Your task to perform on an android device: Show the shopping cart on ebay.com. Search for rayovac triple a on ebay.com, select the first entry, and add it to the cart. Image 0: 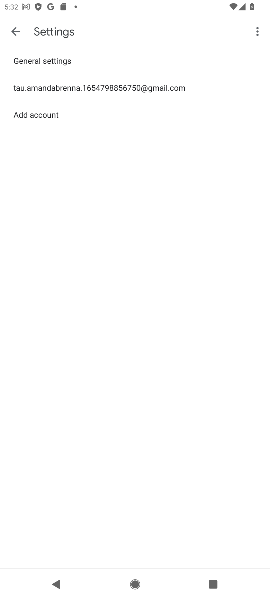
Step 0: press home button
Your task to perform on an android device: Show the shopping cart on ebay.com. Search for rayovac triple a on ebay.com, select the first entry, and add it to the cart. Image 1: 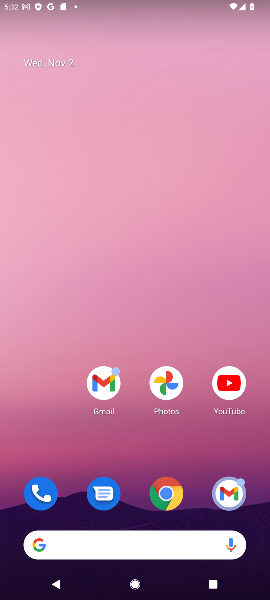
Step 1: drag from (124, 520) to (122, 155)
Your task to perform on an android device: Show the shopping cart on ebay.com. Search for rayovac triple a on ebay.com, select the first entry, and add it to the cart. Image 2: 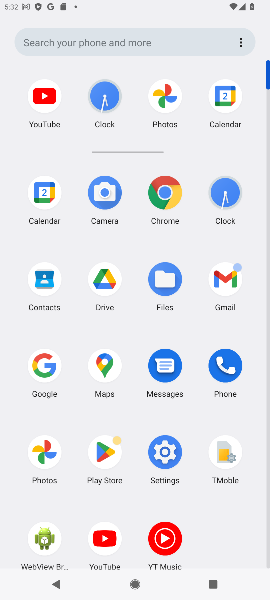
Step 2: click (49, 366)
Your task to perform on an android device: Show the shopping cart on ebay.com. Search for rayovac triple a on ebay.com, select the first entry, and add it to the cart. Image 3: 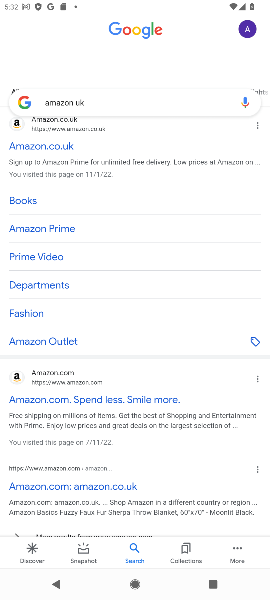
Step 3: click (103, 101)
Your task to perform on an android device: Show the shopping cart on ebay.com. Search for rayovac triple a on ebay.com, select the first entry, and add it to the cart. Image 4: 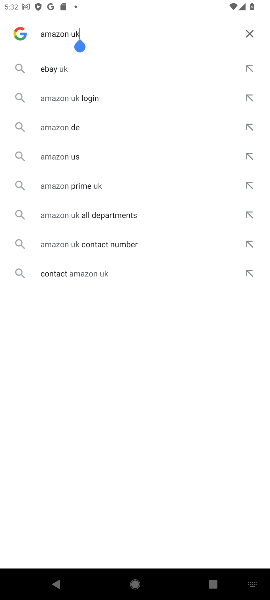
Step 4: click (58, 72)
Your task to perform on an android device: Show the shopping cart on ebay.com. Search for rayovac triple a on ebay.com, select the first entry, and add it to the cart. Image 5: 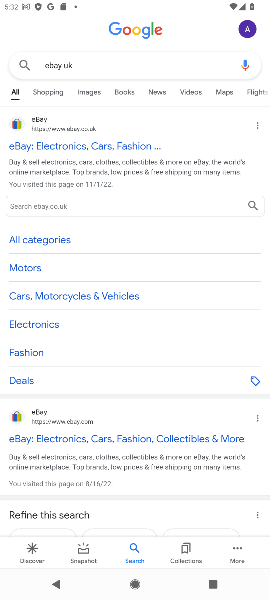
Step 5: click (28, 148)
Your task to perform on an android device: Show the shopping cart on ebay.com. Search for rayovac triple a on ebay.com, select the first entry, and add it to the cart. Image 6: 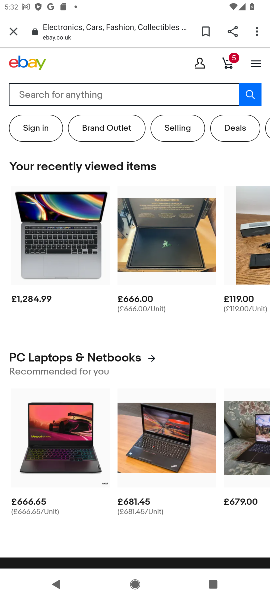
Step 6: click (141, 83)
Your task to perform on an android device: Show the shopping cart on ebay.com. Search for rayovac triple a on ebay.com, select the first entry, and add it to the cart. Image 7: 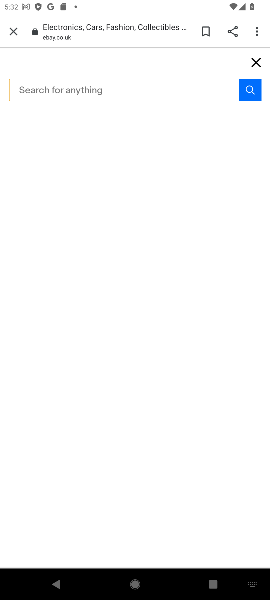
Step 7: click (67, 89)
Your task to perform on an android device: Show the shopping cart on ebay.com. Search for rayovac triple a on ebay.com, select the first entry, and add it to the cart. Image 8: 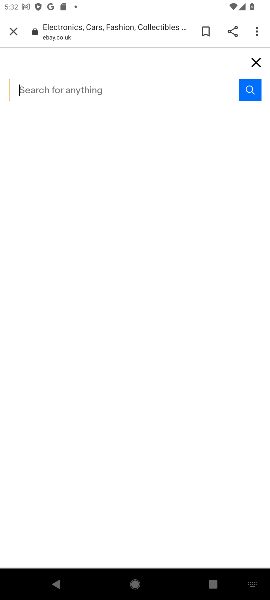
Step 8: type "rayovac "
Your task to perform on an android device: Show the shopping cart on ebay.com. Search for rayovac triple a on ebay.com, select the first entry, and add it to the cart. Image 9: 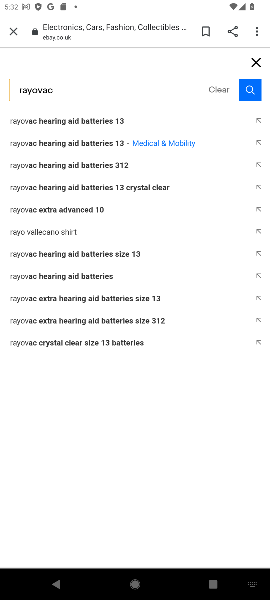
Step 9: click (57, 118)
Your task to perform on an android device: Show the shopping cart on ebay.com. Search for rayovac triple a on ebay.com, select the first entry, and add it to the cart. Image 10: 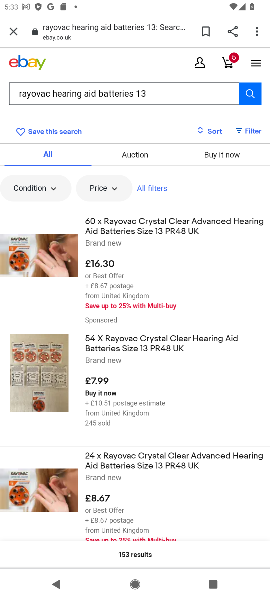
Step 10: click (204, 88)
Your task to perform on an android device: Show the shopping cart on ebay.com. Search for rayovac triple a on ebay.com, select the first entry, and add it to the cart. Image 11: 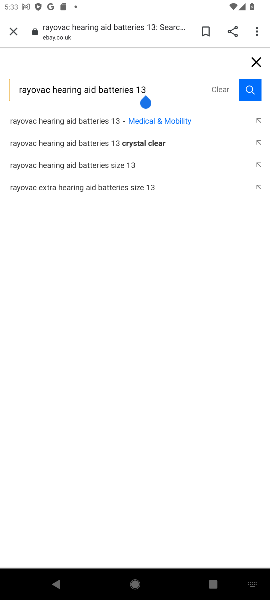
Step 11: click (198, 86)
Your task to perform on an android device: Show the shopping cart on ebay.com. Search for rayovac triple a on ebay.com, select the first entry, and add it to the cart. Image 12: 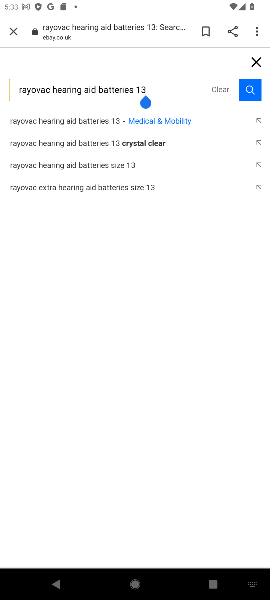
Step 12: click (207, 86)
Your task to perform on an android device: Show the shopping cart on ebay.com. Search for rayovac triple a on ebay.com, select the first entry, and add it to the cart. Image 13: 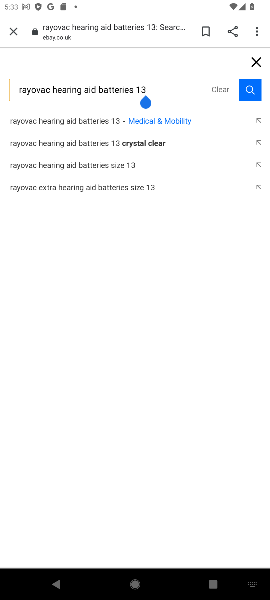
Step 13: click (214, 90)
Your task to perform on an android device: Show the shopping cart on ebay.com. Search for rayovac triple a on ebay.com, select the first entry, and add it to the cart. Image 14: 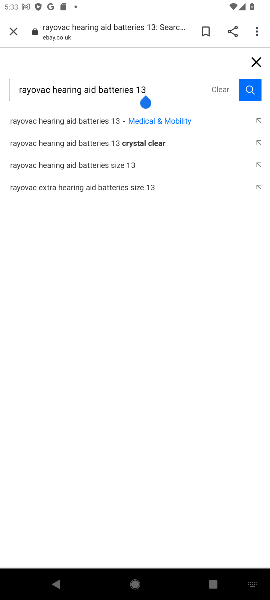
Step 14: click (214, 90)
Your task to perform on an android device: Show the shopping cart on ebay.com. Search for rayovac triple a on ebay.com, select the first entry, and add it to the cart. Image 15: 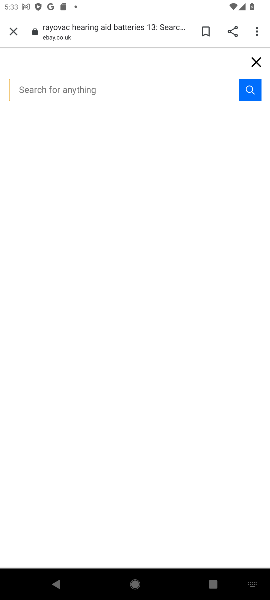
Step 15: click (214, 90)
Your task to perform on an android device: Show the shopping cart on ebay.com. Search for rayovac triple a on ebay.com, select the first entry, and add it to the cart. Image 16: 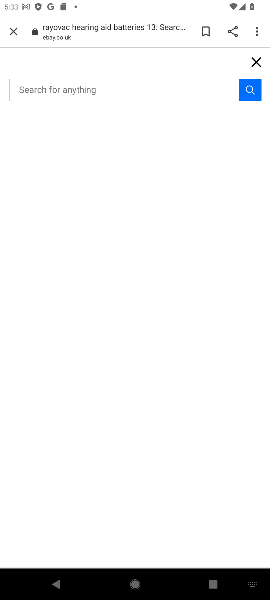
Step 16: click (61, 89)
Your task to perform on an android device: Show the shopping cart on ebay.com. Search for rayovac triple a on ebay.com, select the first entry, and add it to the cart. Image 17: 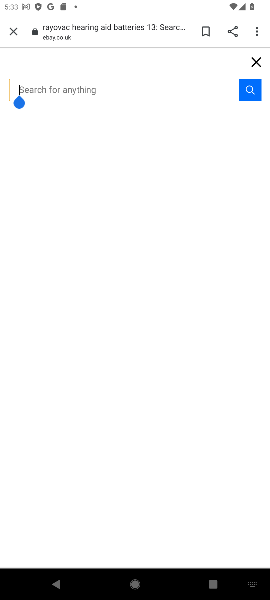
Step 17: type " rayovac triple "
Your task to perform on an android device: Show the shopping cart on ebay.com. Search for rayovac triple a on ebay.com, select the first entry, and add it to the cart. Image 18: 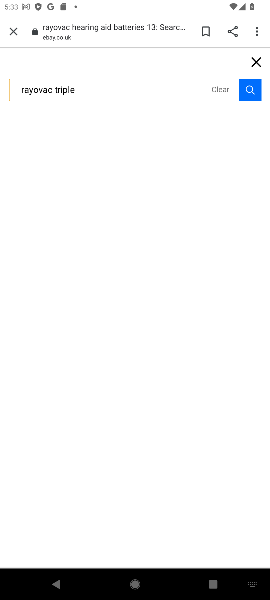
Step 18: click (251, 93)
Your task to perform on an android device: Show the shopping cart on ebay.com. Search for rayovac triple a on ebay.com, select the first entry, and add it to the cart. Image 19: 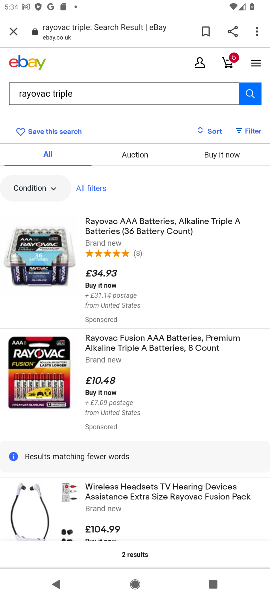
Step 19: click (33, 253)
Your task to perform on an android device: Show the shopping cart on ebay.com. Search for rayovac triple a on ebay.com, select the first entry, and add it to the cart. Image 20: 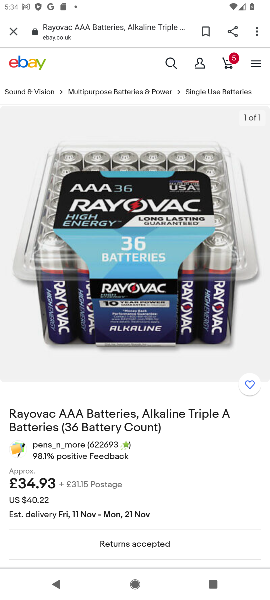
Step 20: drag from (182, 505) to (182, 189)
Your task to perform on an android device: Show the shopping cart on ebay.com. Search for rayovac triple a on ebay.com, select the first entry, and add it to the cart. Image 21: 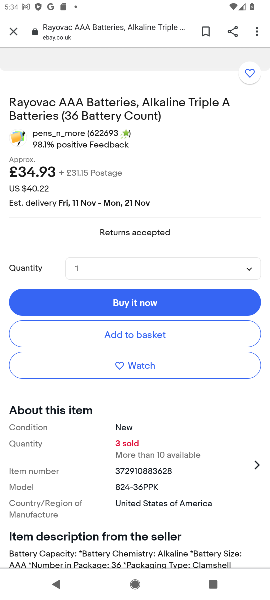
Step 21: click (148, 336)
Your task to perform on an android device: Show the shopping cart on ebay.com. Search for rayovac triple a on ebay.com, select the first entry, and add it to the cart. Image 22: 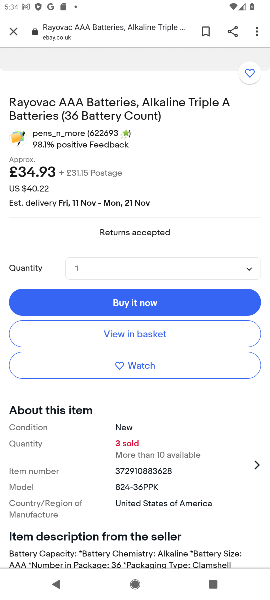
Step 22: task complete